Your task to perform on an android device: Go to Android settings Image 0: 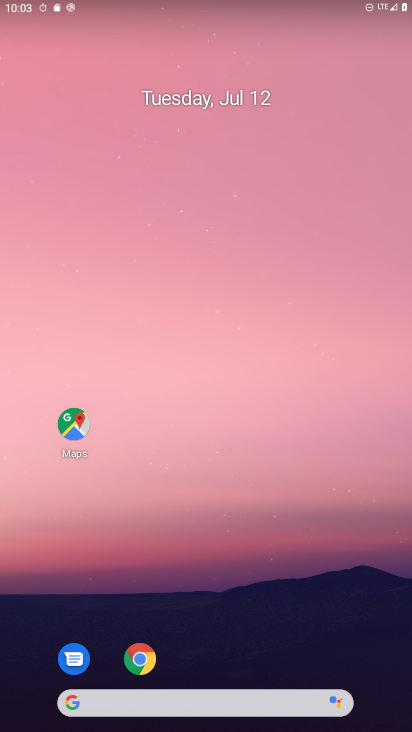
Step 0: drag from (391, 679) to (301, 183)
Your task to perform on an android device: Go to Android settings Image 1: 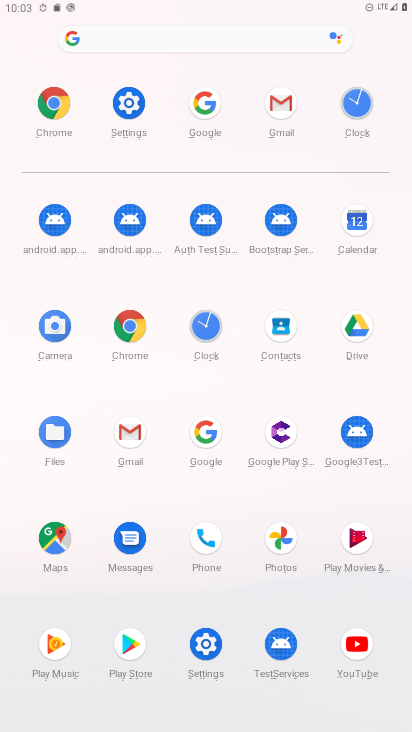
Step 1: click (202, 642)
Your task to perform on an android device: Go to Android settings Image 2: 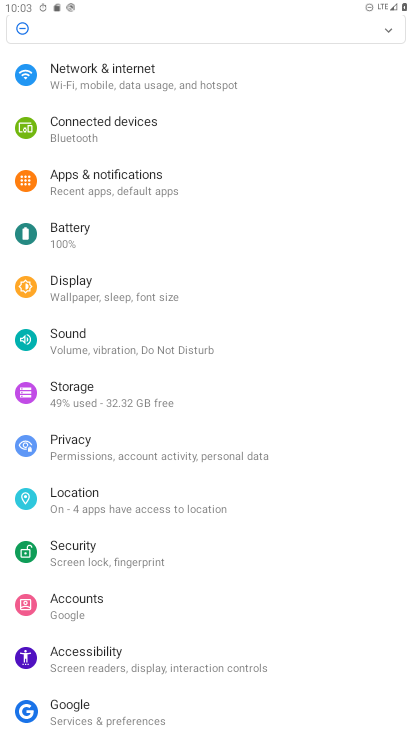
Step 2: task complete